Your task to perform on an android device: snooze an email in the gmail app Image 0: 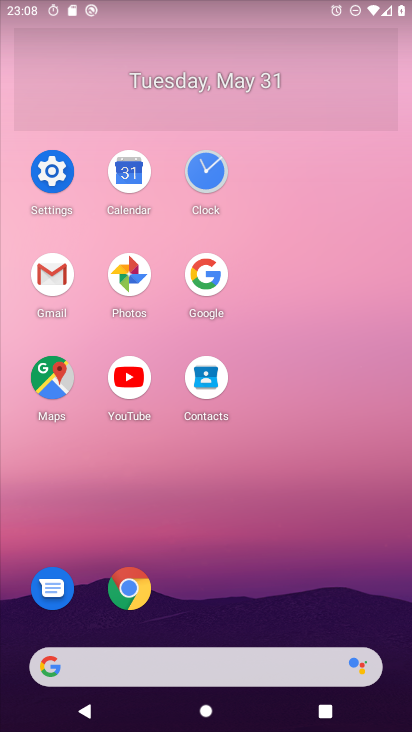
Step 0: click (44, 275)
Your task to perform on an android device: snooze an email in the gmail app Image 1: 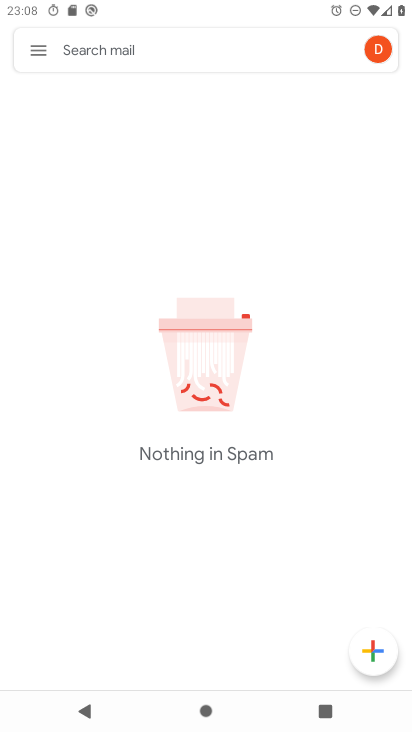
Step 1: click (37, 53)
Your task to perform on an android device: snooze an email in the gmail app Image 2: 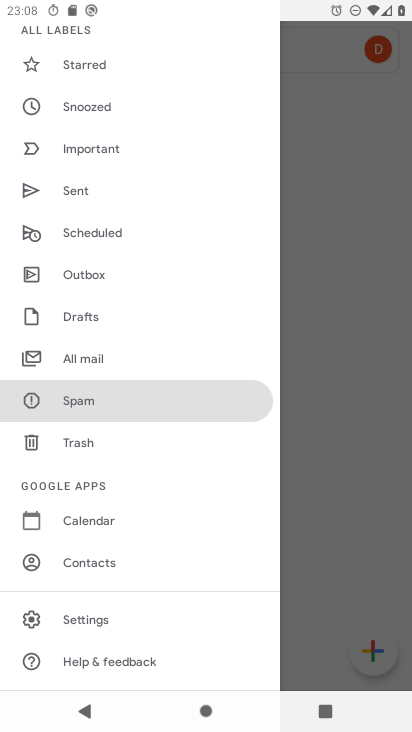
Step 2: click (106, 357)
Your task to perform on an android device: snooze an email in the gmail app Image 3: 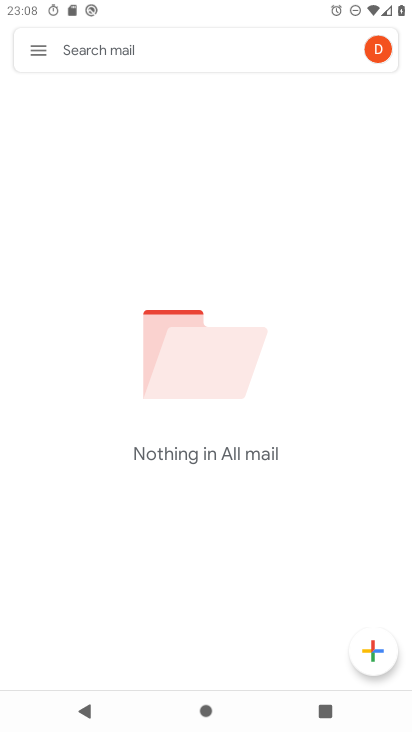
Step 3: task complete